Your task to perform on an android device: star an email in the gmail app Image 0: 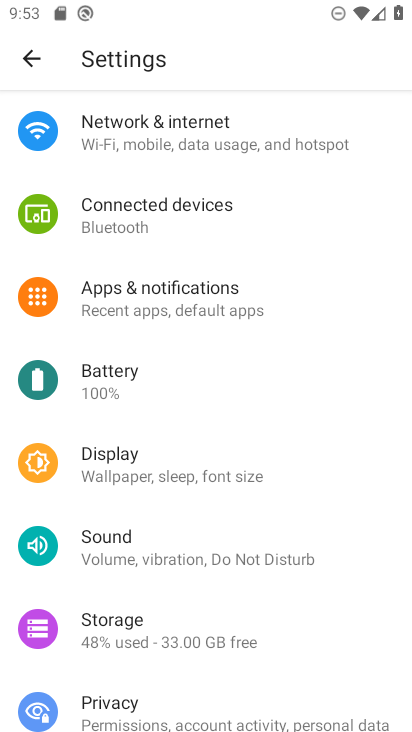
Step 0: press home button
Your task to perform on an android device: star an email in the gmail app Image 1: 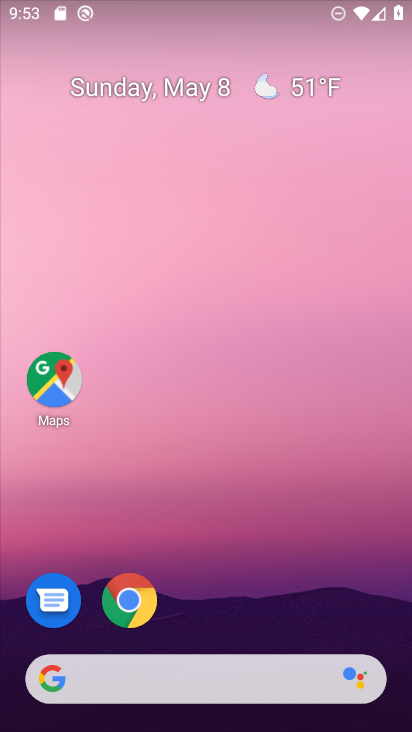
Step 1: drag from (261, 627) to (262, 0)
Your task to perform on an android device: star an email in the gmail app Image 2: 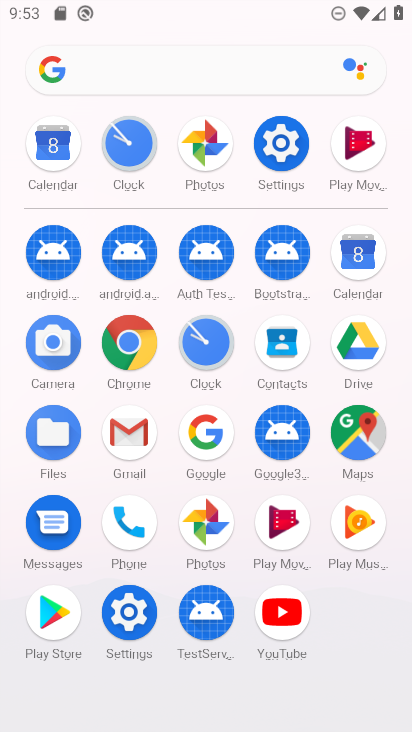
Step 2: click (119, 439)
Your task to perform on an android device: star an email in the gmail app Image 3: 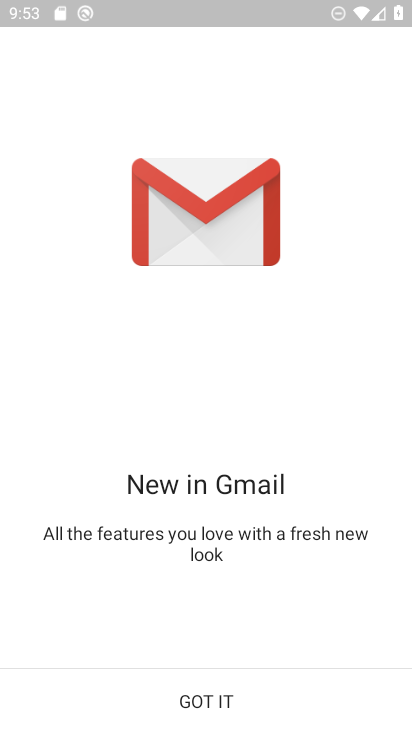
Step 3: click (228, 698)
Your task to perform on an android device: star an email in the gmail app Image 4: 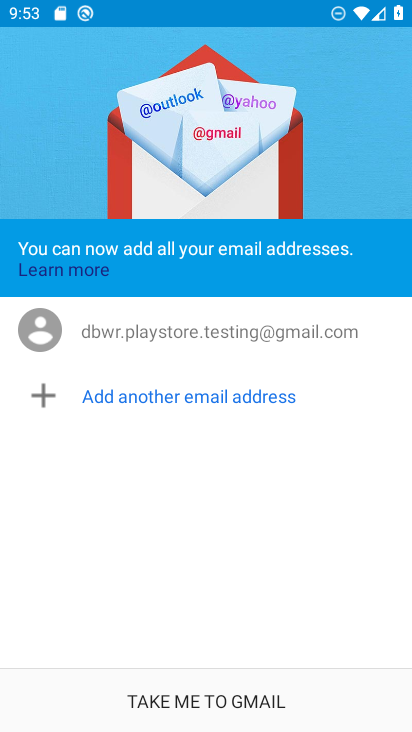
Step 4: click (228, 698)
Your task to perform on an android device: star an email in the gmail app Image 5: 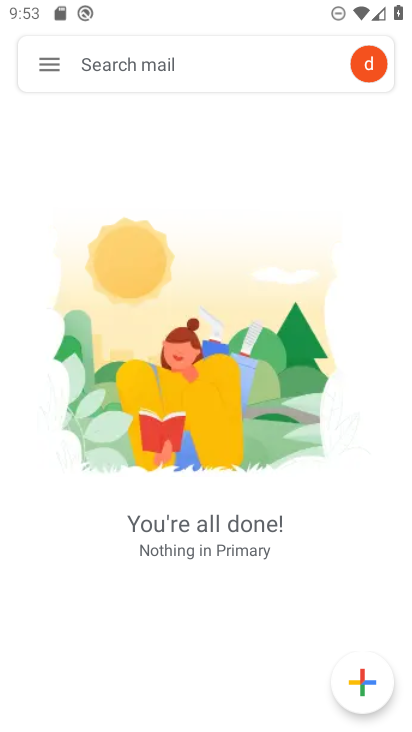
Step 5: click (43, 63)
Your task to perform on an android device: star an email in the gmail app Image 6: 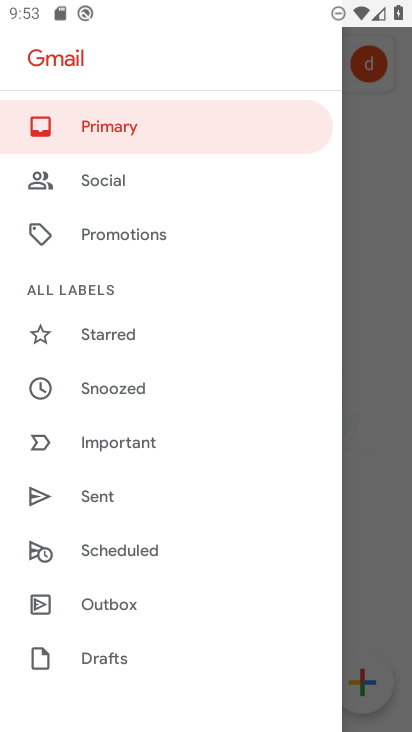
Step 6: drag from (206, 605) to (224, 176)
Your task to perform on an android device: star an email in the gmail app Image 7: 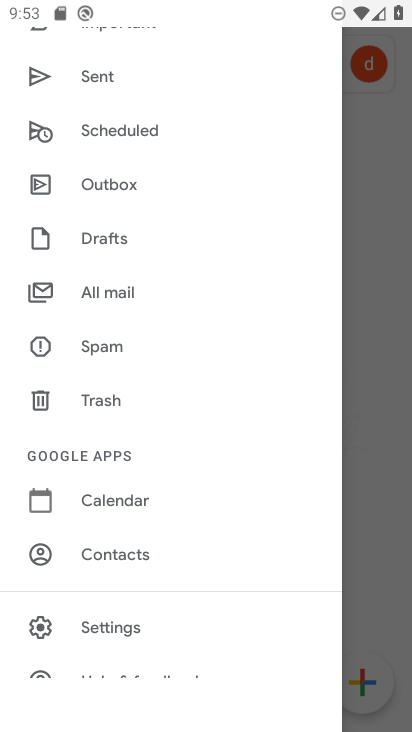
Step 7: click (103, 304)
Your task to perform on an android device: star an email in the gmail app Image 8: 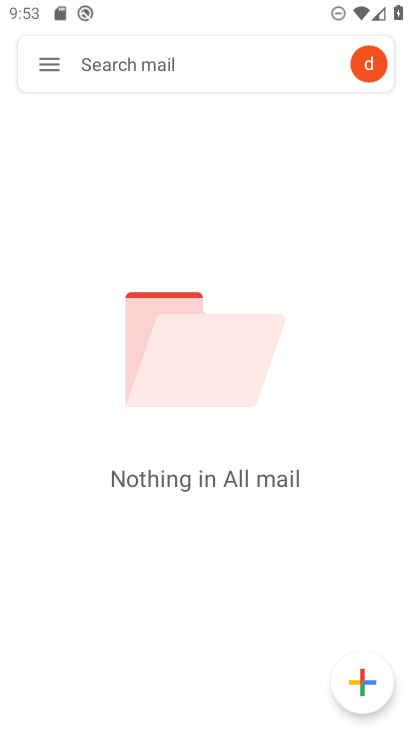
Step 8: task complete